Your task to perform on an android device: change the clock style Image 0: 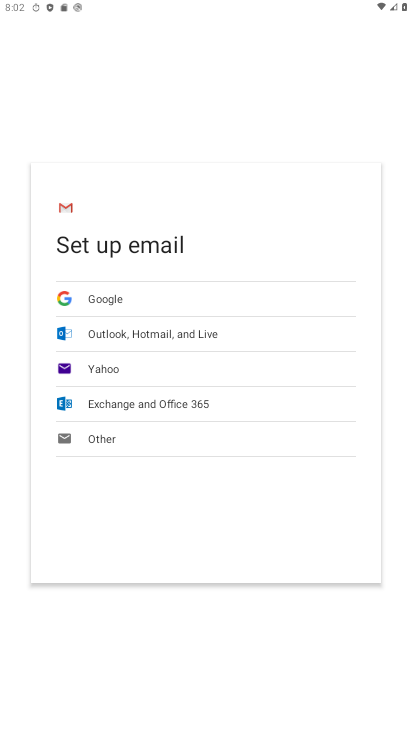
Step 0: press back button
Your task to perform on an android device: change the clock style Image 1: 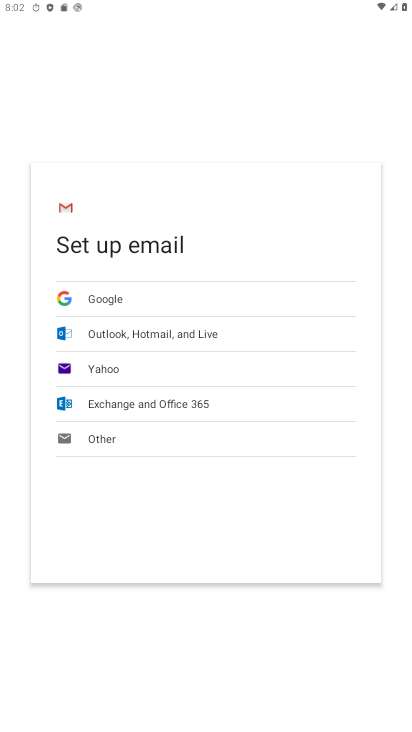
Step 1: press back button
Your task to perform on an android device: change the clock style Image 2: 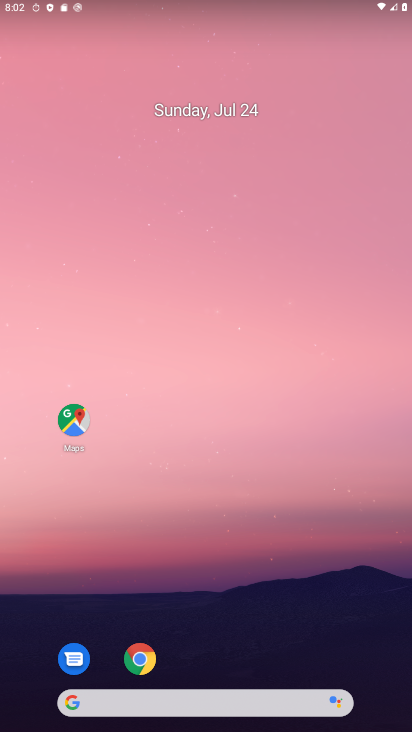
Step 2: drag from (169, 671) to (158, 189)
Your task to perform on an android device: change the clock style Image 3: 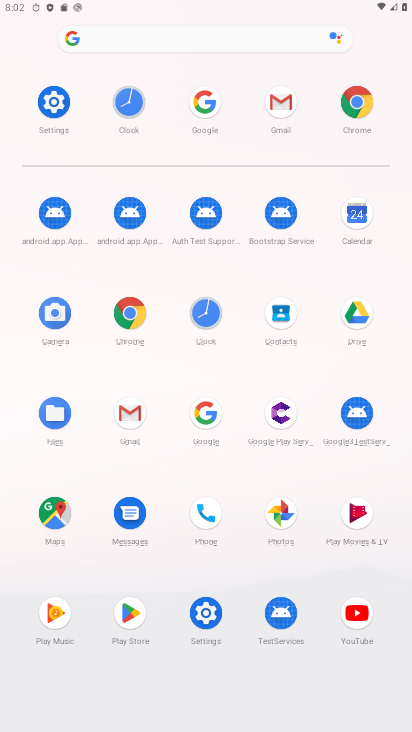
Step 3: click (201, 310)
Your task to perform on an android device: change the clock style Image 4: 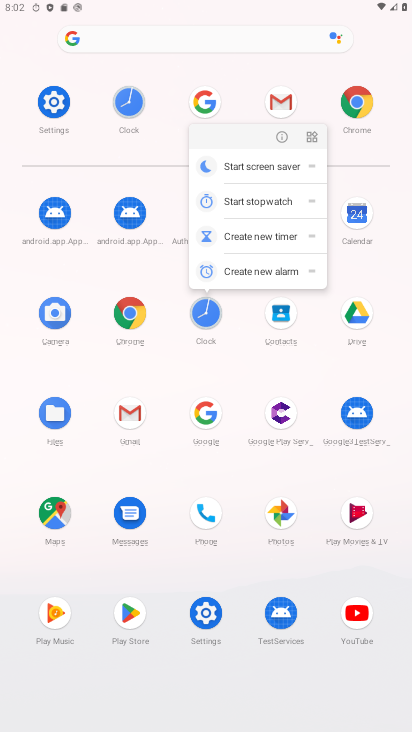
Step 4: click (208, 304)
Your task to perform on an android device: change the clock style Image 5: 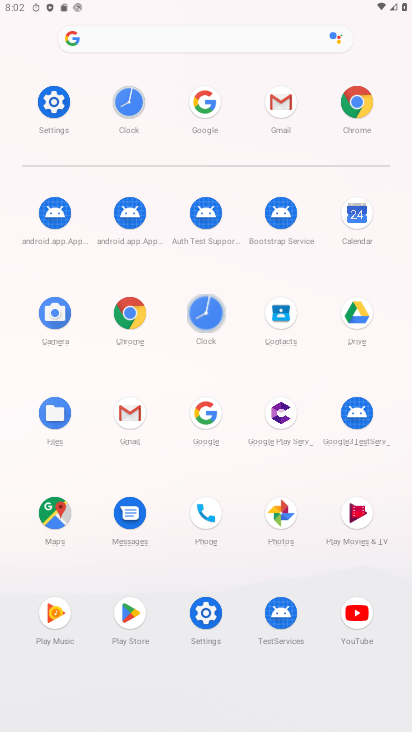
Step 5: click (202, 307)
Your task to perform on an android device: change the clock style Image 6: 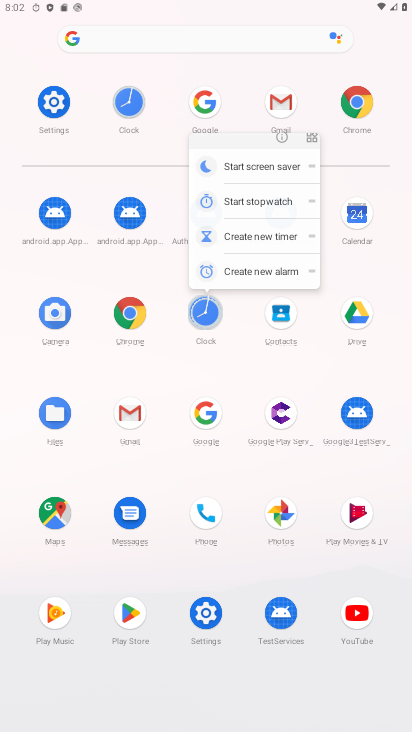
Step 6: click (171, 301)
Your task to perform on an android device: change the clock style Image 7: 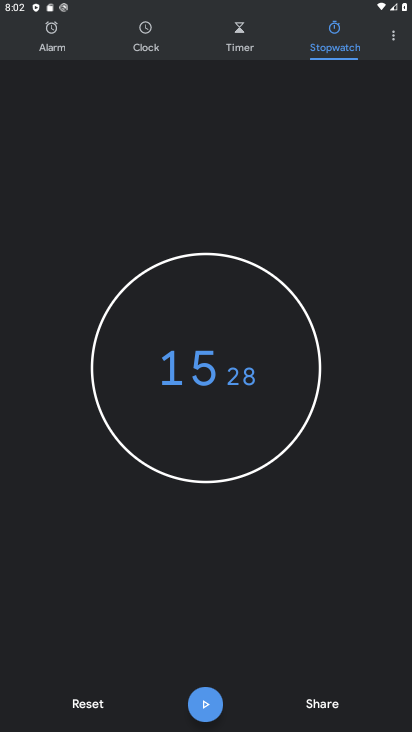
Step 7: click (396, 38)
Your task to perform on an android device: change the clock style Image 8: 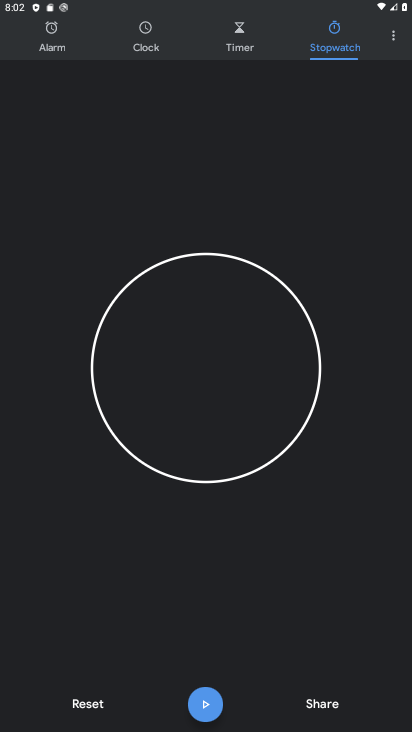
Step 8: click (394, 37)
Your task to perform on an android device: change the clock style Image 9: 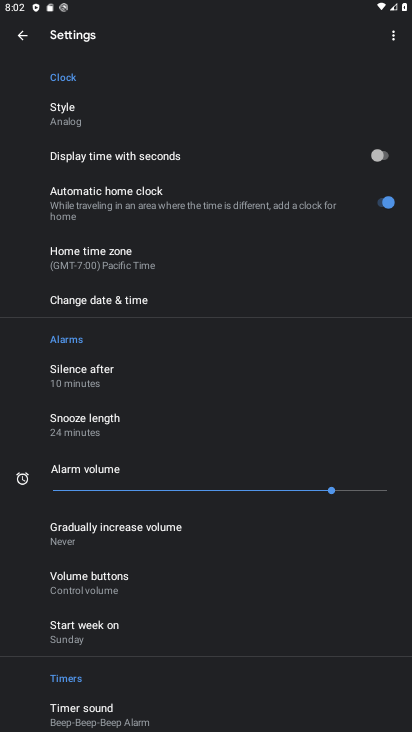
Step 9: click (64, 122)
Your task to perform on an android device: change the clock style Image 10: 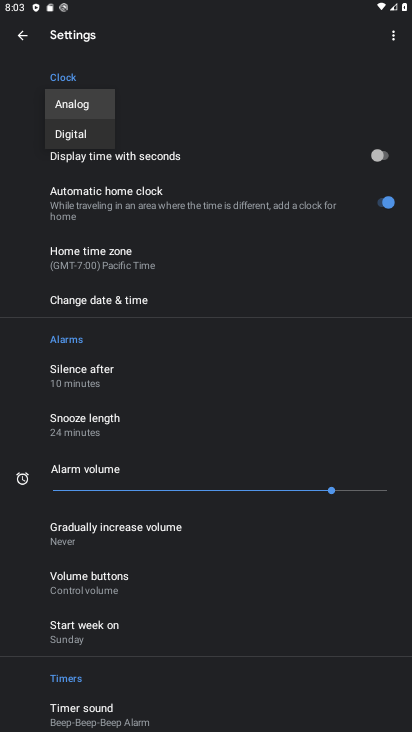
Step 10: click (75, 132)
Your task to perform on an android device: change the clock style Image 11: 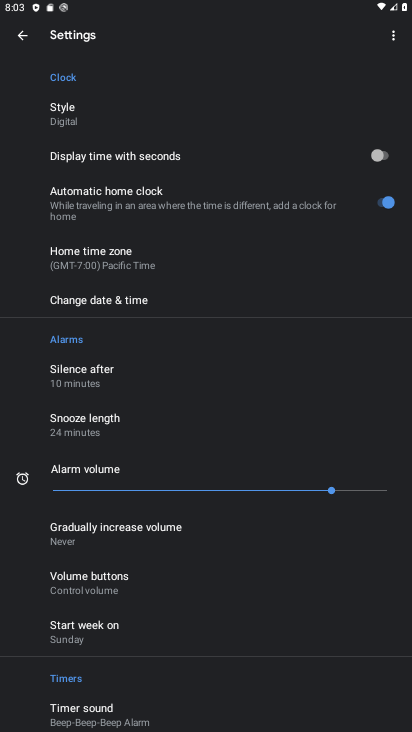
Step 11: click (68, 116)
Your task to perform on an android device: change the clock style Image 12: 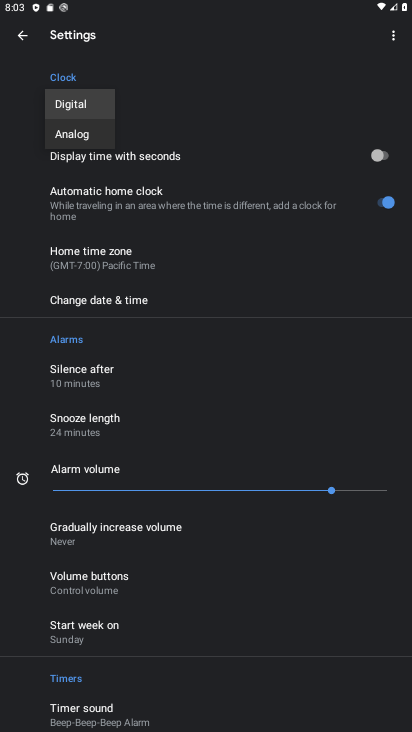
Step 12: click (67, 93)
Your task to perform on an android device: change the clock style Image 13: 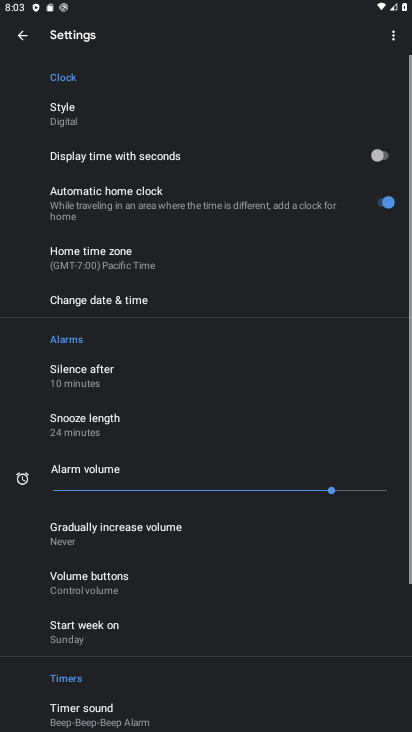
Step 13: task complete